Your task to perform on an android device: find snoozed emails in the gmail app Image 0: 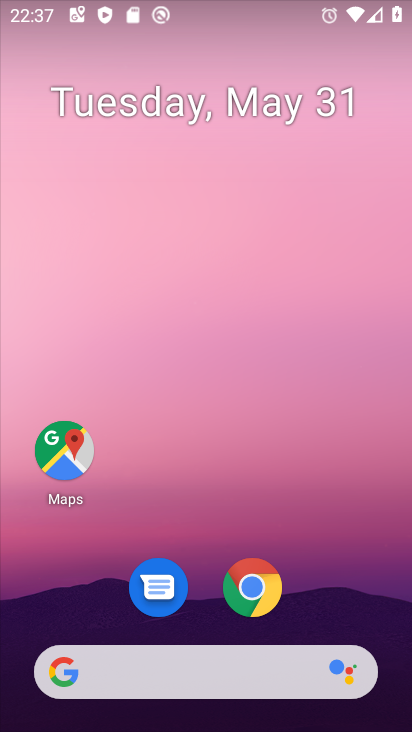
Step 0: drag from (363, 618) to (375, 232)
Your task to perform on an android device: find snoozed emails in the gmail app Image 1: 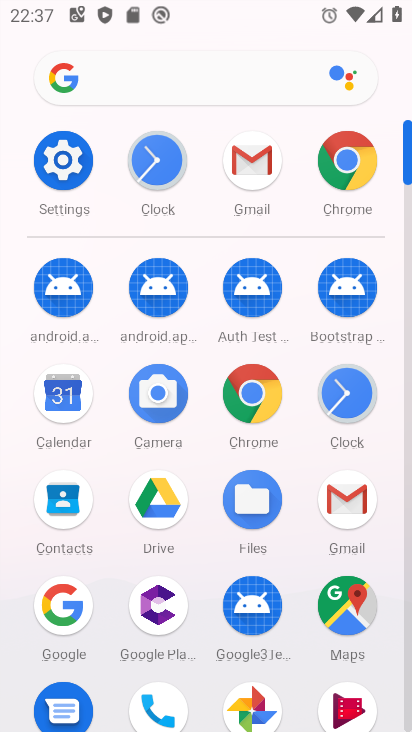
Step 1: click (362, 514)
Your task to perform on an android device: find snoozed emails in the gmail app Image 2: 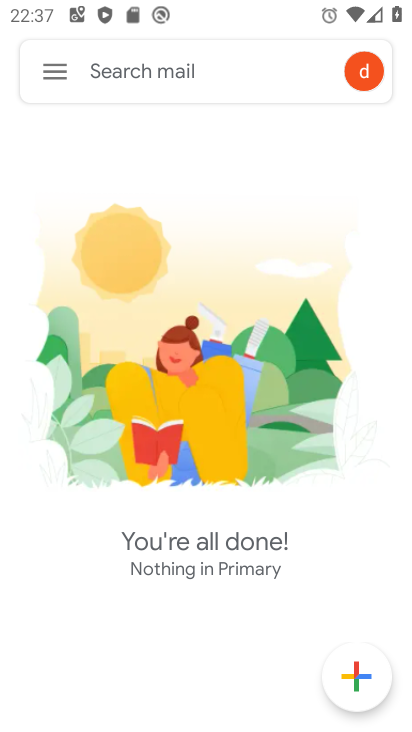
Step 2: click (63, 83)
Your task to perform on an android device: find snoozed emails in the gmail app Image 3: 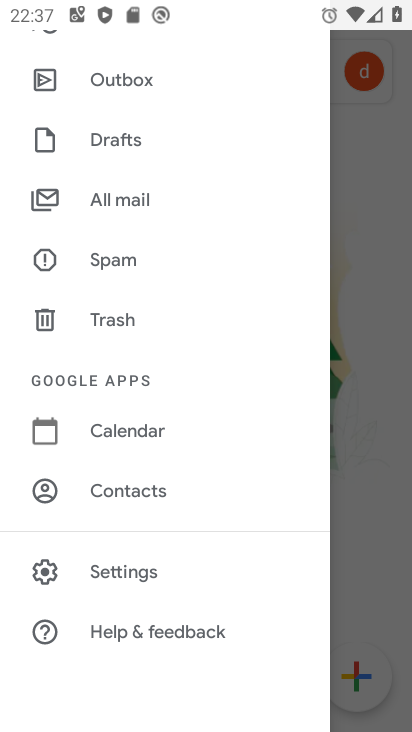
Step 3: drag from (230, 277) to (226, 355)
Your task to perform on an android device: find snoozed emails in the gmail app Image 4: 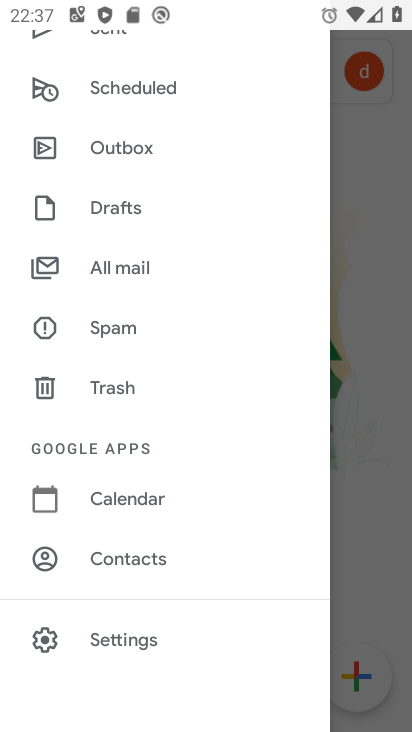
Step 4: drag from (239, 222) to (247, 350)
Your task to perform on an android device: find snoozed emails in the gmail app Image 5: 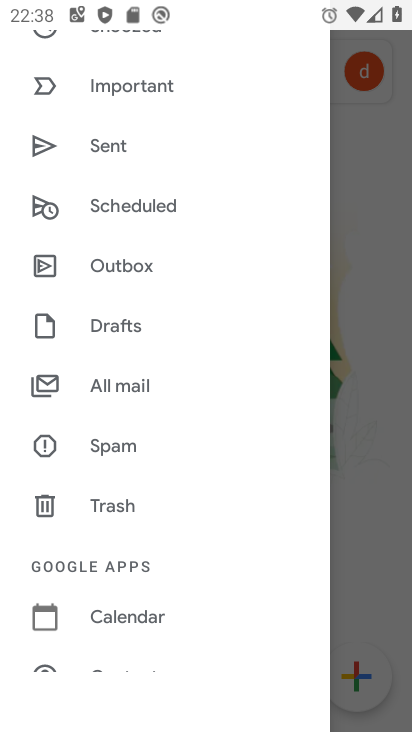
Step 5: drag from (257, 197) to (256, 296)
Your task to perform on an android device: find snoozed emails in the gmail app Image 6: 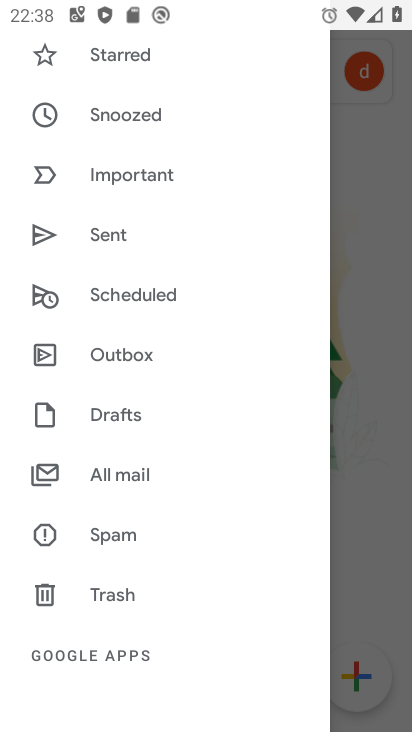
Step 6: drag from (228, 559) to (217, 436)
Your task to perform on an android device: find snoozed emails in the gmail app Image 7: 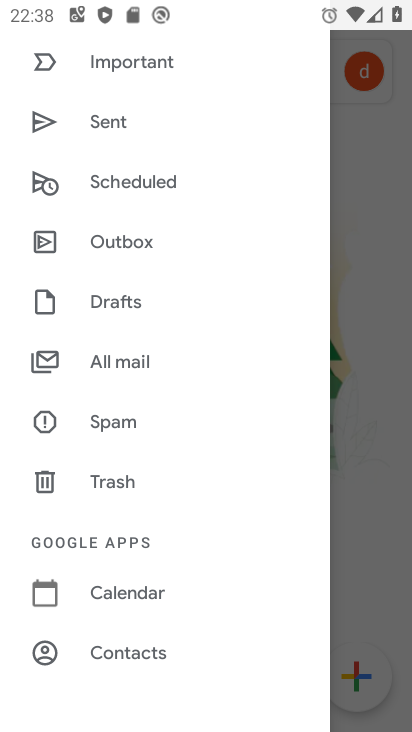
Step 7: drag from (248, 509) to (250, 283)
Your task to perform on an android device: find snoozed emails in the gmail app Image 8: 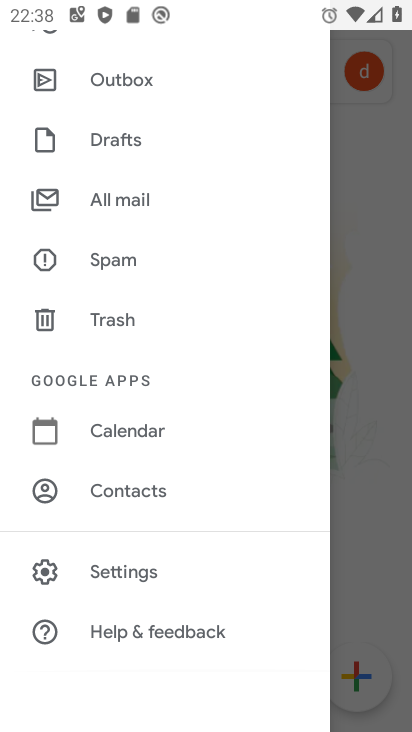
Step 8: drag from (250, 265) to (241, 400)
Your task to perform on an android device: find snoozed emails in the gmail app Image 9: 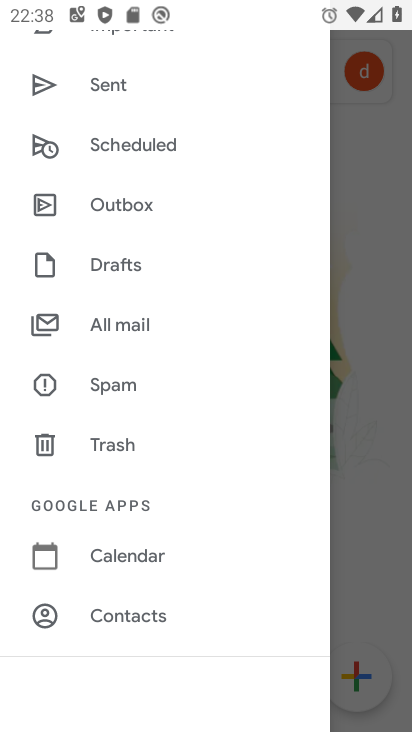
Step 9: drag from (245, 244) to (251, 356)
Your task to perform on an android device: find snoozed emails in the gmail app Image 10: 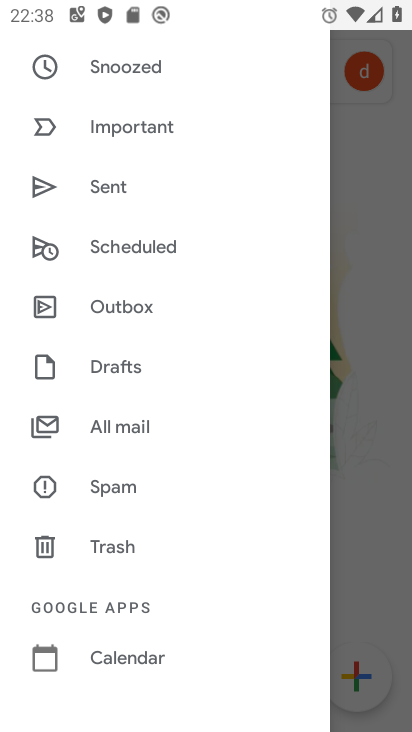
Step 10: drag from (270, 231) to (269, 330)
Your task to perform on an android device: find snoozed emails in the gmail app Image 11: 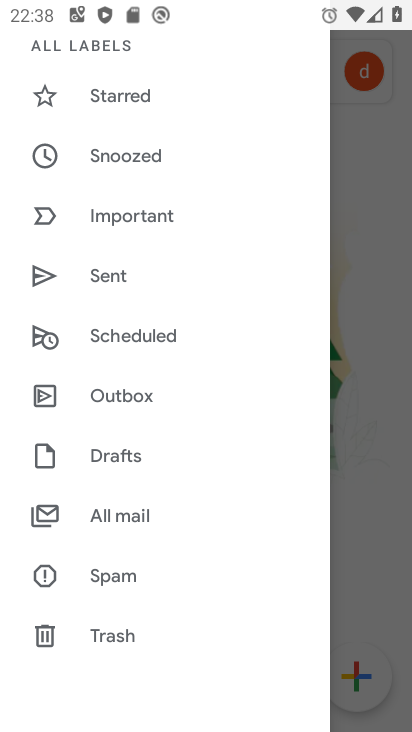
Step 11: drag from (258, 214) to (266, 326)
Your task to perform on an android device: find snoozed emails in the gmail app Image 12: 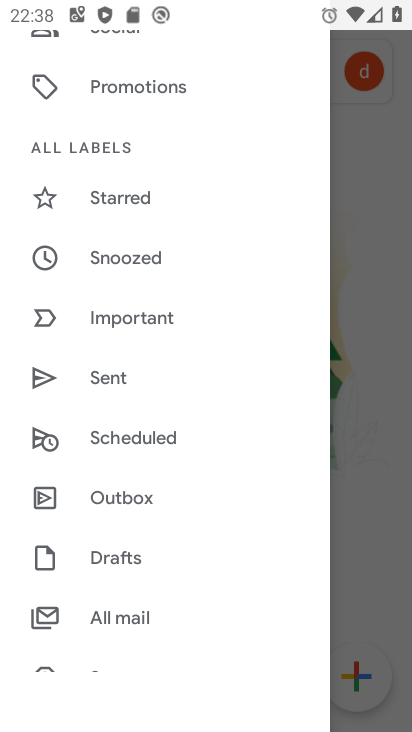
Step 12: drag from (256, 191) to (256, 303)
Your task to perform on an android device: find snoozed emails in the gmail app Image 13: 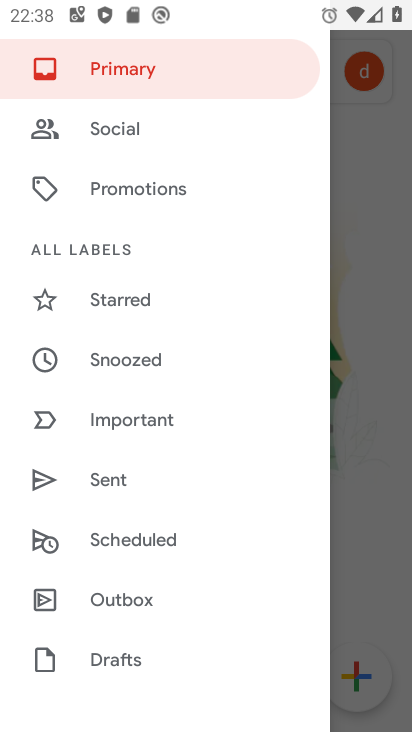
Step 13: drag from (258, 247) to (254, 382)
Your task to perform on an android device: find snoozed emails in the gmail app Image 14: 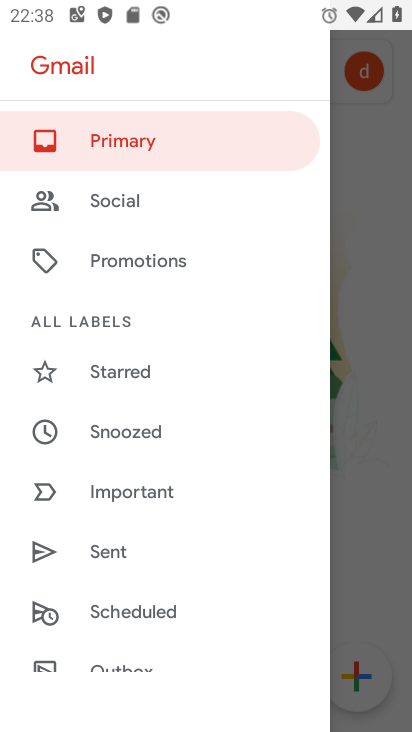
Step 14: click (186, 436)
Your task to perform on an android device: find snoozed emails in the gmail app Image 15: 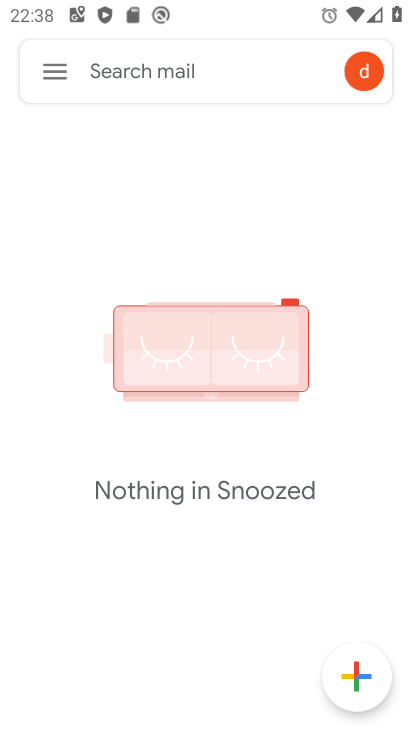
Step 15: task complete